Your task to perform on an android device: turn on priority inbox in the gmail app Image 0: 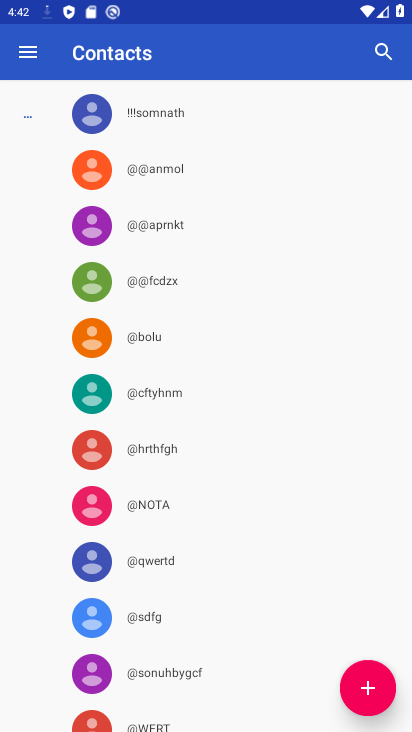
Step 0: press home button
Your task to perform on an android device: turn on priority inbox in the gmail app Image 1: 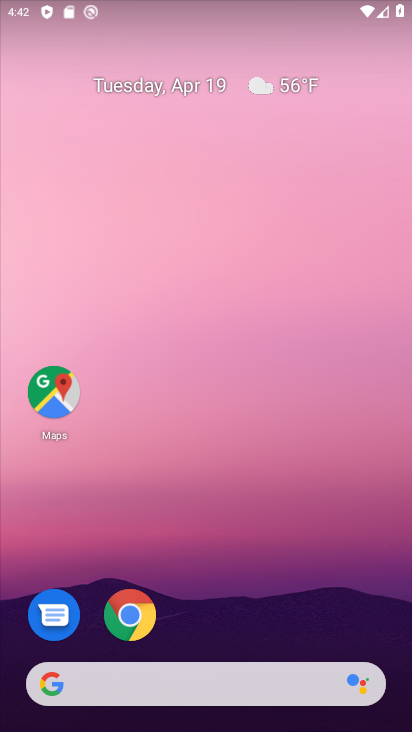
Step 1: drag from (343, 636) to (302, 233)
Your task to perform on an android device: turn on priority inbox in the gmail app Image 2: 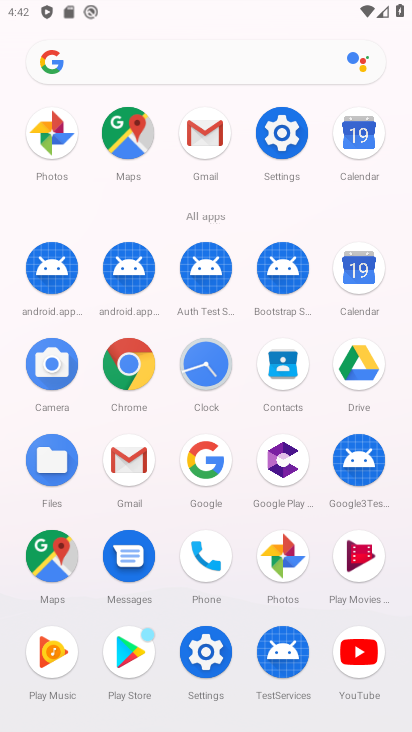
Step 2: click (127, 458)
Your task to perform on an android device: turn on priority inbox in the gmail app Image 3: 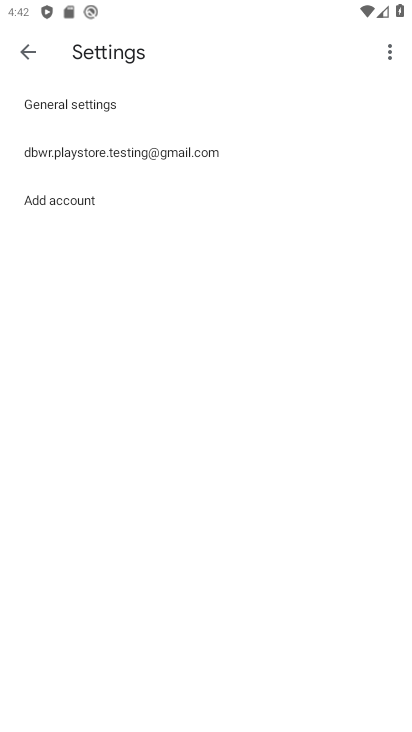
Step 3: click (95, 142)
Your task to perform on an android device: turn on priority inbox in the gmail app Image 4: 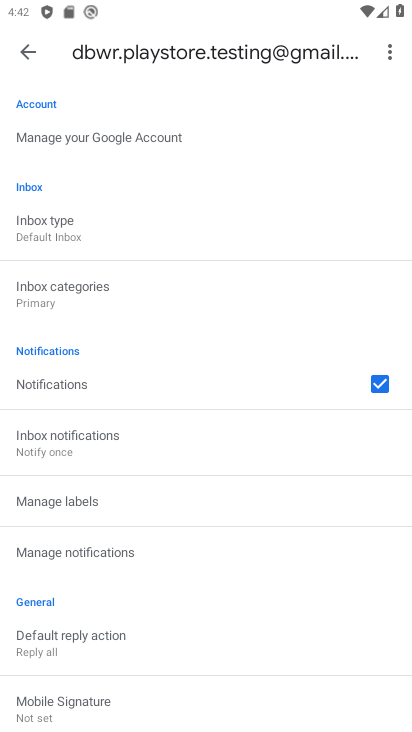
Step 4: click (29, 234)
Your task to perform on an android device: turn on priority inbox in the gmail app Image 5: 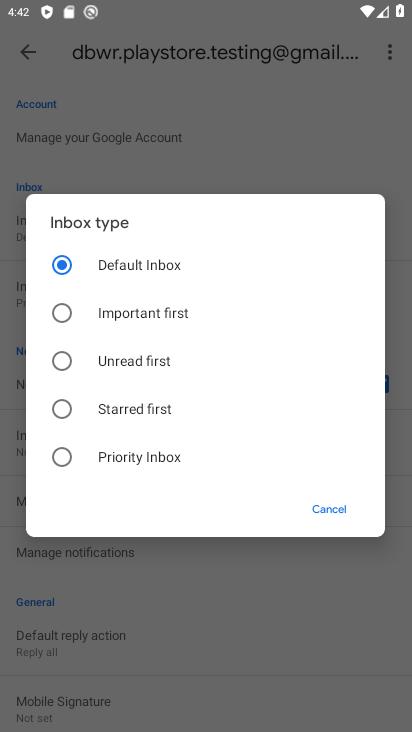
Step 5: click (61, 454)
Your task to perform on an android device: turn on priority inbox in the gmail app Image 6: 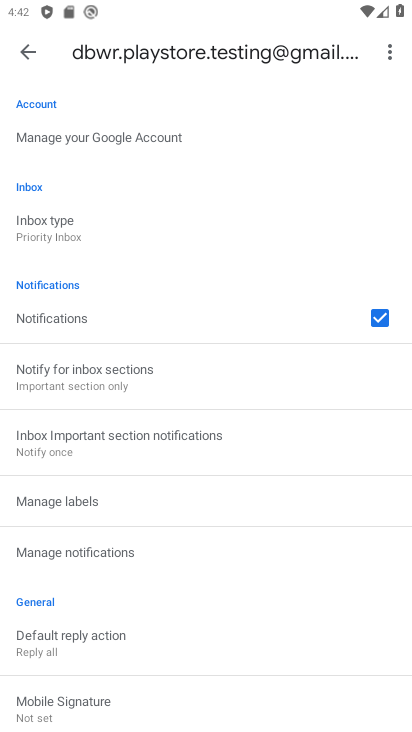
Step 6: task complete